Your task to perform on an android device: turn on priority inbox in the gmail app Image 0: 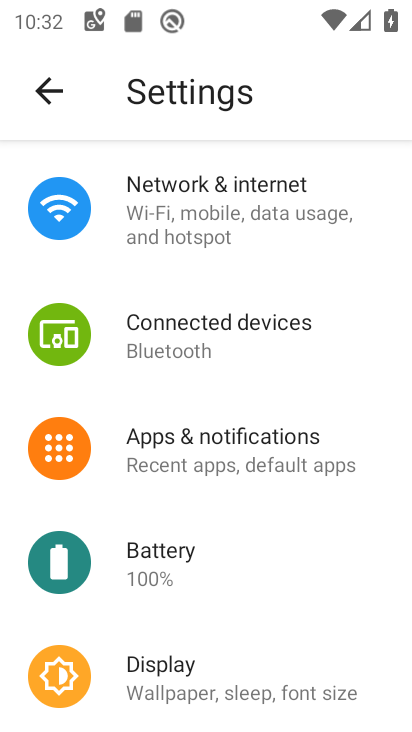
Step 0: press home button
Your task to perform on an android device: turn on priority inbox in the gmail app Image 1: 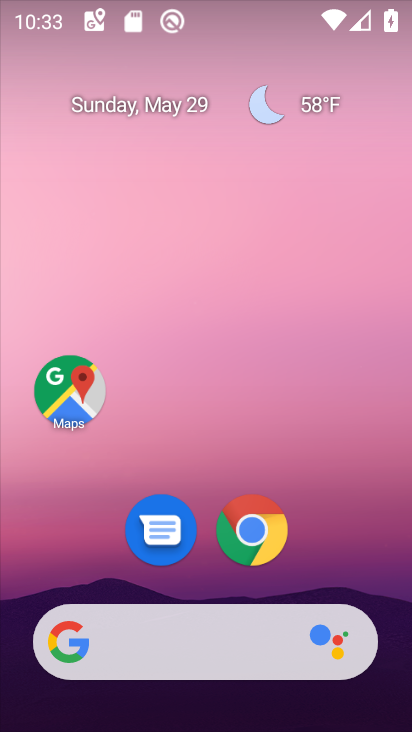
Step 1: drag from (203, 643) to (215, 45)
Your task to perform on an android device: turn on priority inbox in the gmail app Image 2: 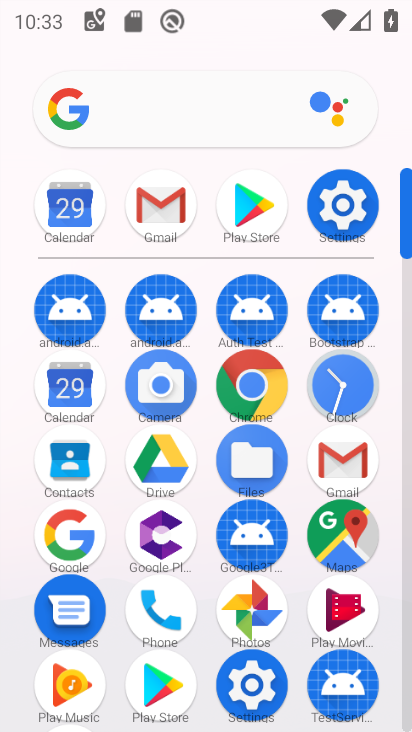
Step 2: click (330, 452)
Your task to perform on an android device: turn on priority inbox in the gmail app Image 3: 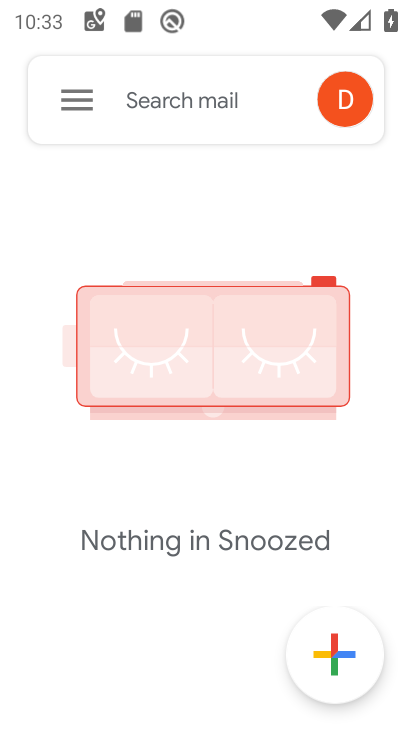
Step 3: click (59, 114)
Your task to perform on an android device: turn on priority inbox in the gmail app Image 4: 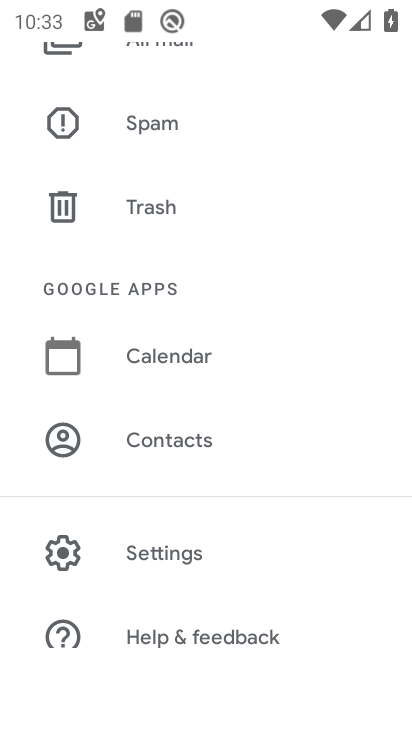
Step 4: click (165, 561)
Your task to perform on an android device: turn on priority inbox in the gmail app Image 5: 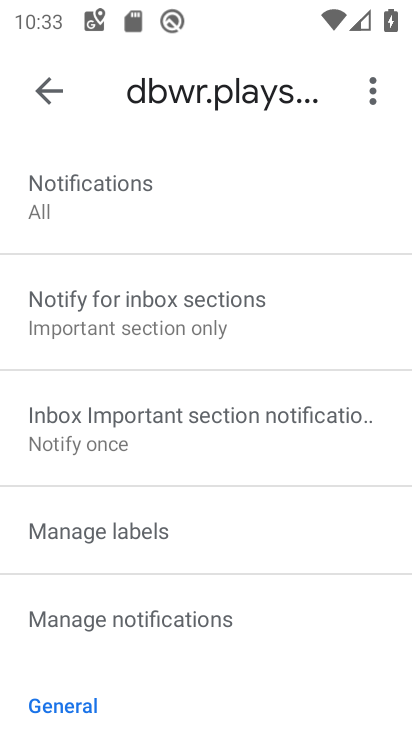
Step 5: drag from (151, 194) to (190, 626)
Your task to perform on an android device: turn on priority inbox in the gmail app Image 6: 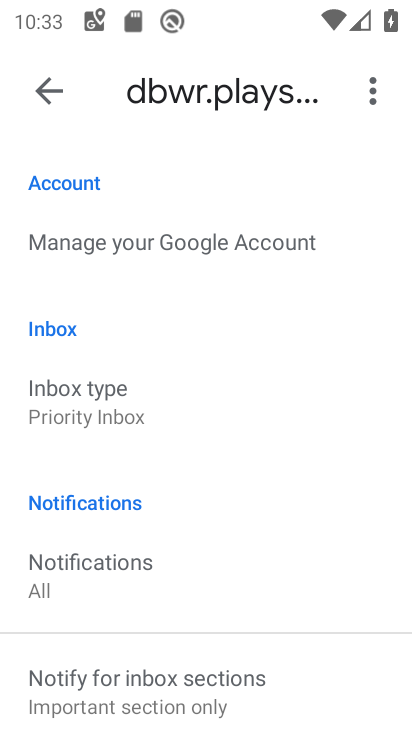
Step 6: click (129, 411)
Your task to perform on an android device: turn on priority inbox in the gmail app Image 7: 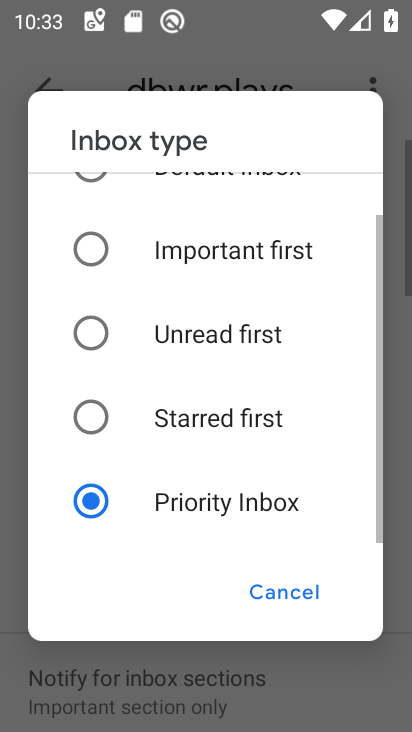
Step 7: click (217, 504)
Your task to perform on an android device: turn on priority inbox in the gmail app Image 8: 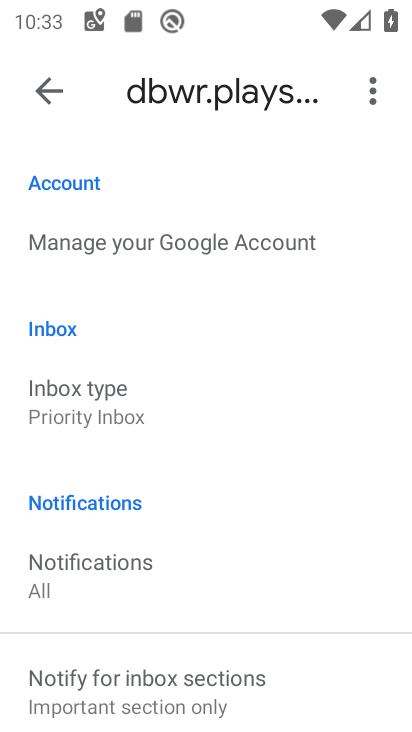
Step 8: task complete